Your task to perform on an android device: Open privacy settings Image 0: 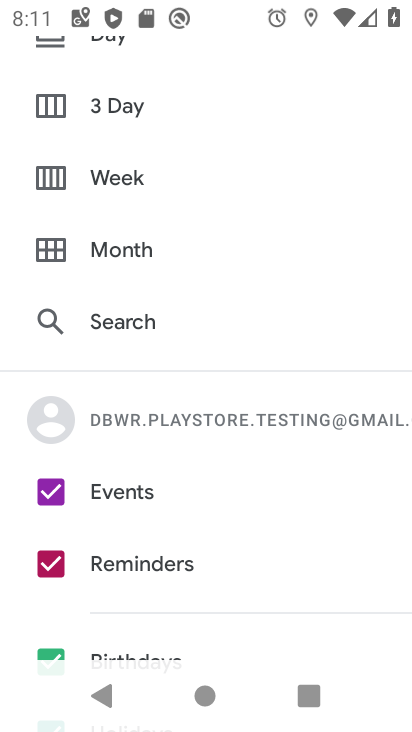
Step 0: press home button
Your task to perform on an android device: Open privacy settings Image 1: 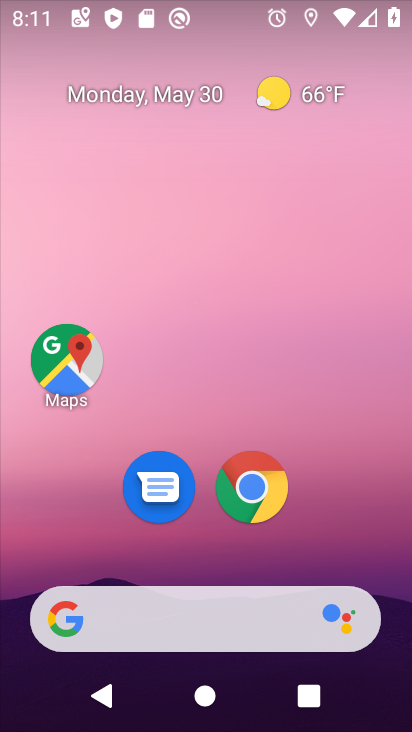
Step 1: drag from (323, 555) to (359, 179)
Your task to perform on an android device: Open privacy settings Image 2: 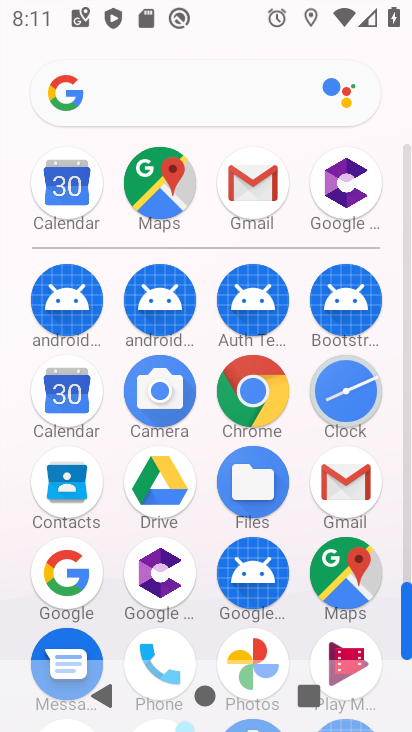
Step 2: drag from (393, 545) to (411, 109)
Your task to perform on an android device: Open privacy settings Image 3: 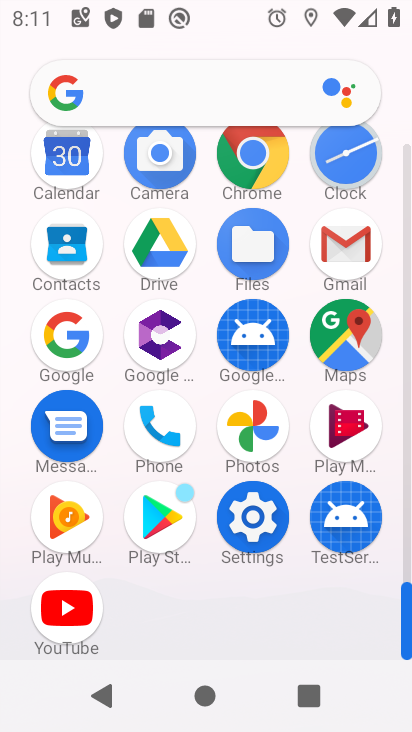
Step 3: click (250, 506)
Your task to perform on an android device: Open privacy settings Image 4: 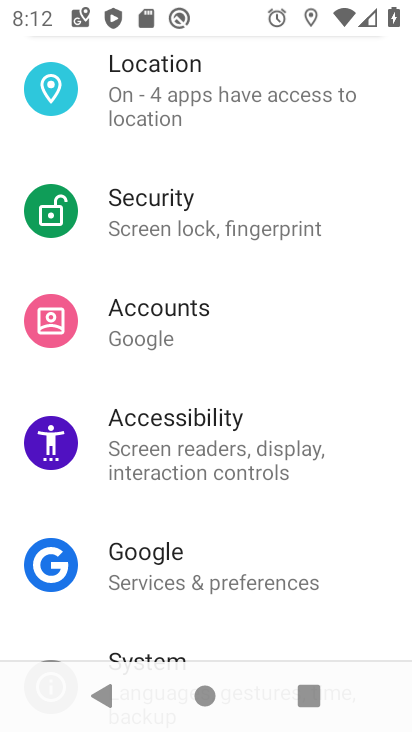
Step 4: drag from (264, 171) to (288, 556)
Your task to perform on an android device: Open privacy settings Image 5: 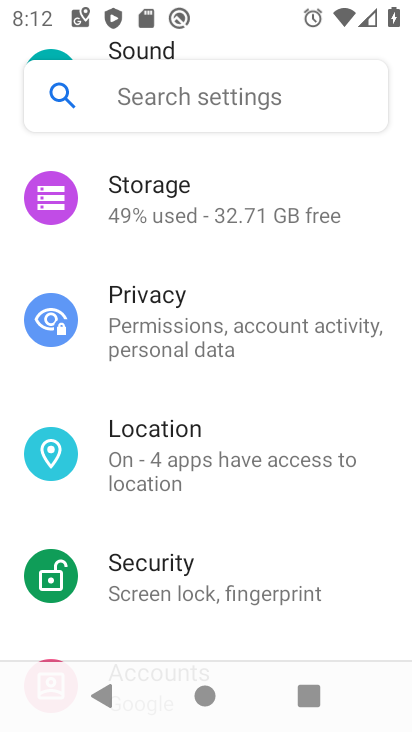
Step 5: drag from (264, 184) to (277, 420)
Your task to perform on an android device: Open privacy settings Image 6: 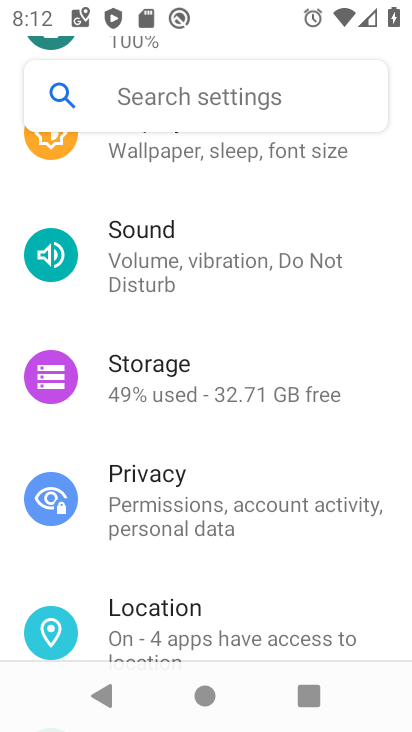
Step 6: click (154, 509)
Your task to perform on an android device: Open privacy settings Image 7: 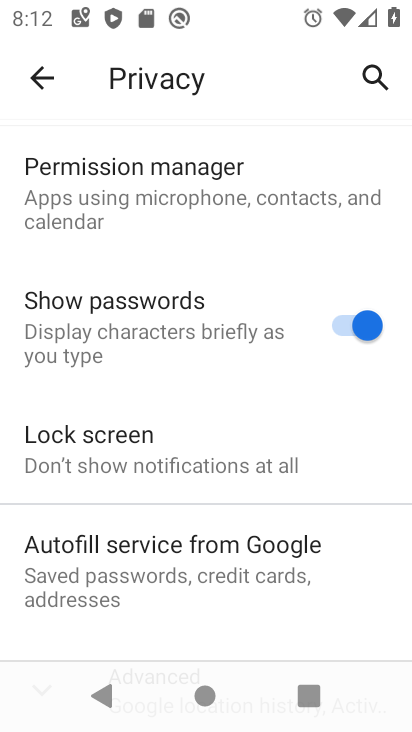
Step 7: task complete